Your task to perform on an android device: allow cookies in the chrome app Image 0: 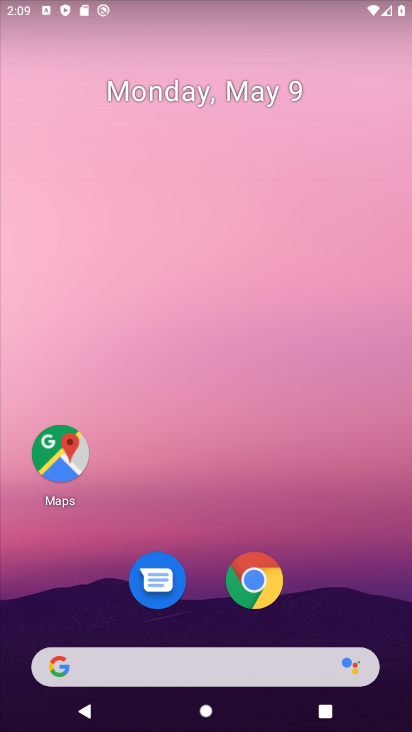
Step 0: click (268, 576)
Your task to perform on an android device: allow cookies in the chrome app Image 1: 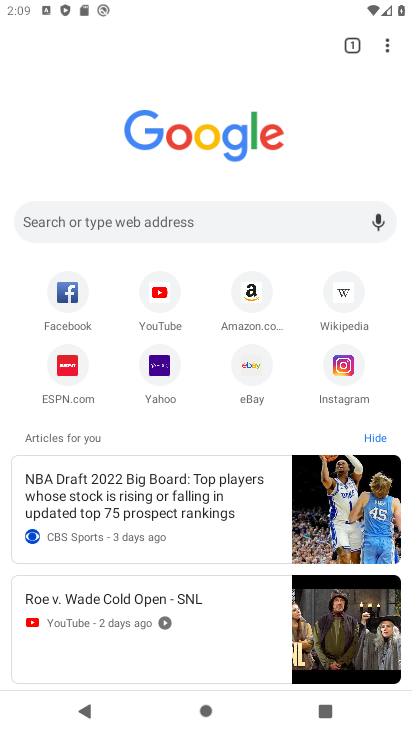
Step 1: click (384, 57)
Your task to perform on an android device: allow cookies in the chrome app Image 2: 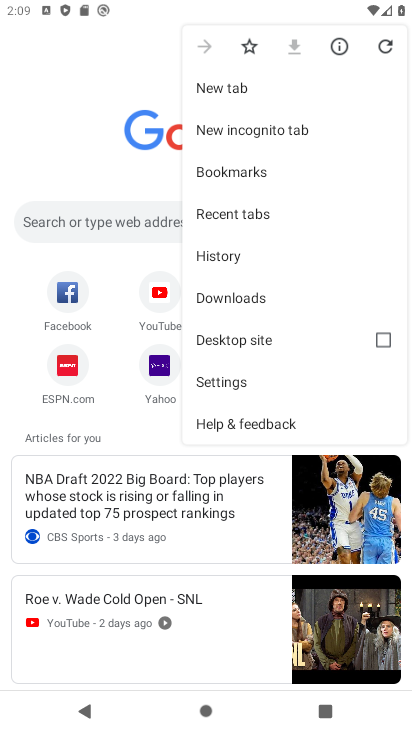
Step 2: click (255, 376)
Your task to perform on an android device: allow cookies in the chrome app Image 3: 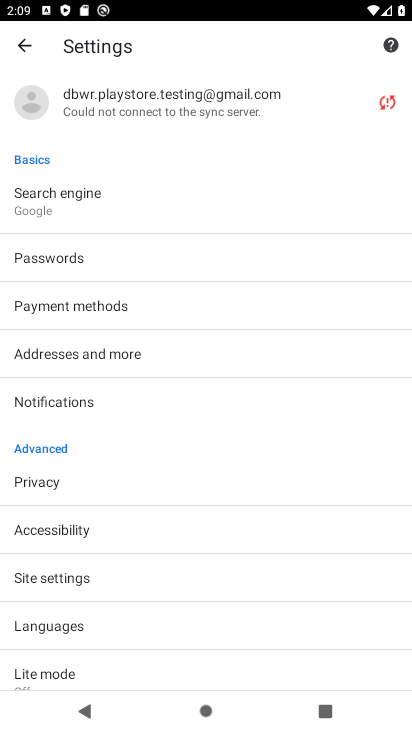
Step 3: click (145, 583)
Your task to perform on an android device: allow cookies in the chrome app Image 4: 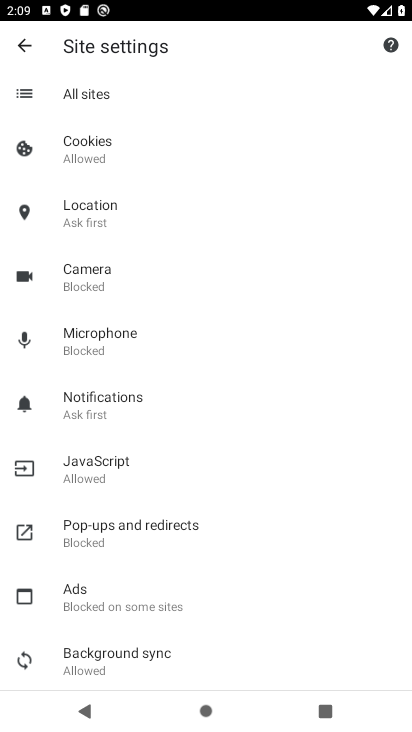
Step 4: click (107, 152)
Your task to perform on an android device: allow cookies in the chrome app Image 5: 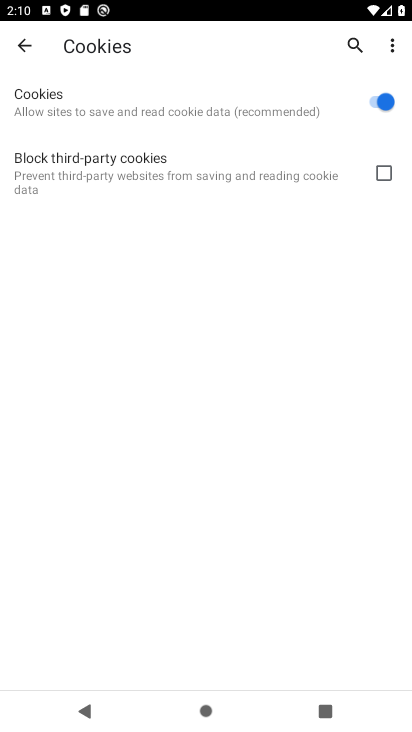
Step 5: task complete